Your task to perform on an android device: What's on my calendar today? Image 0: 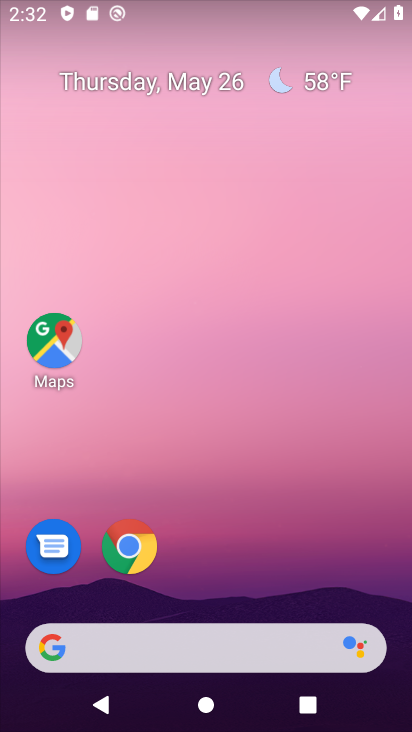
Step 0: press home button
Your task to perform on an android device: What's on my calendar today? Image 1: 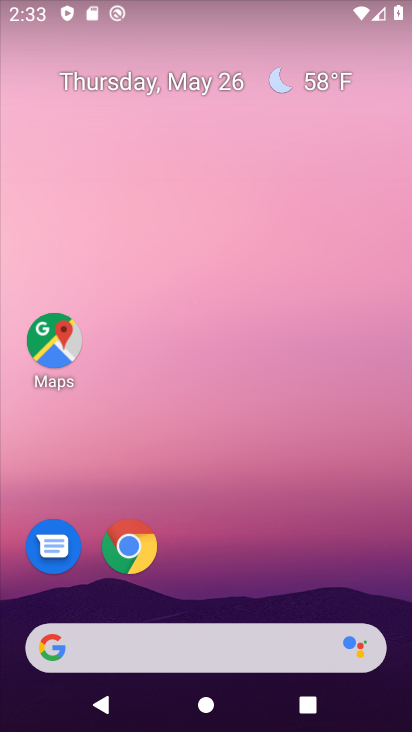
Step 1: drag from (214, 612) to (206, 76)
Your task to perform on an android device: What's on my calendar today? Image 2: 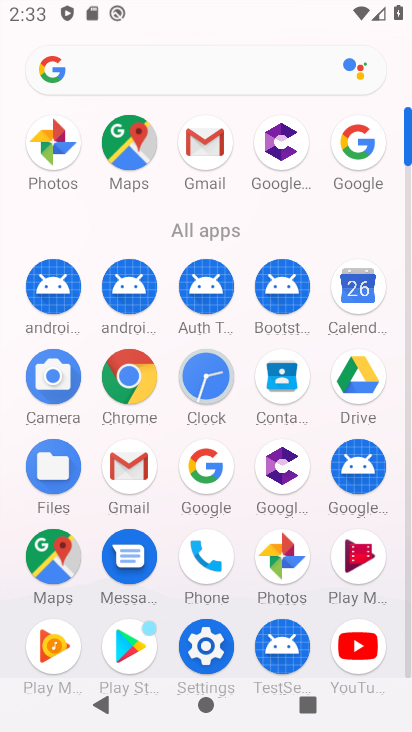
Step 2: click (355, 289)
Your task to perform on an android device: What's on my calendar today? Image 3: 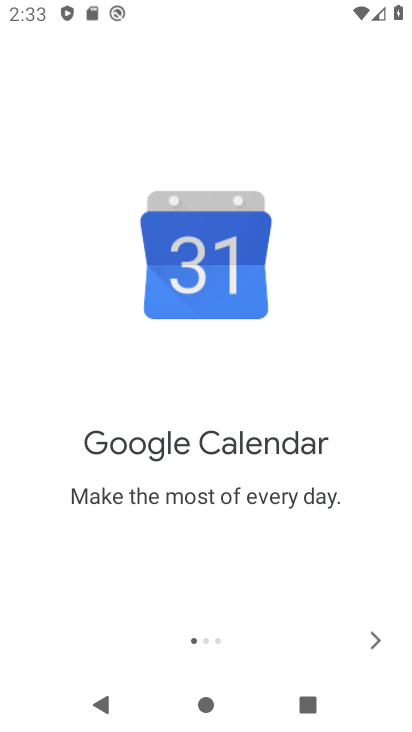
Step 3: click (374, 631)
Your task to perform on an android device: What's on my calendar today? Image 4: 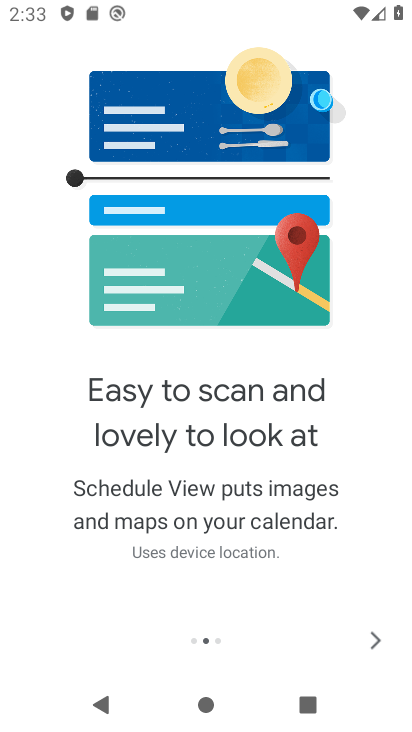
Step 4: click (373, 631)
Your task to perform on an android device: What's on my calendar today? Image 5: 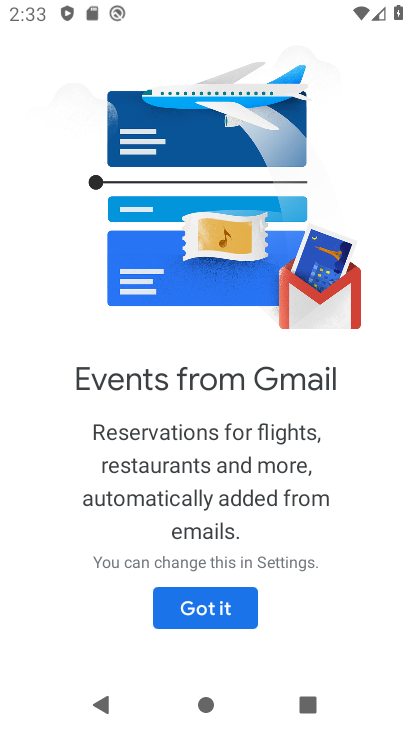
Step 5: click (211, 601)
Your task to perform on an android device: What's on my calendar today? Image 6: 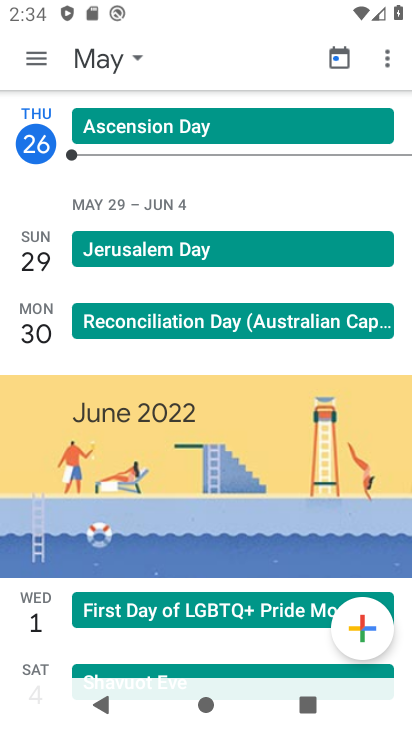
Step 6: drag from (47, 166) to (63, 301)
Your task to perform on an android device: What's on my calendar today? Image 7: 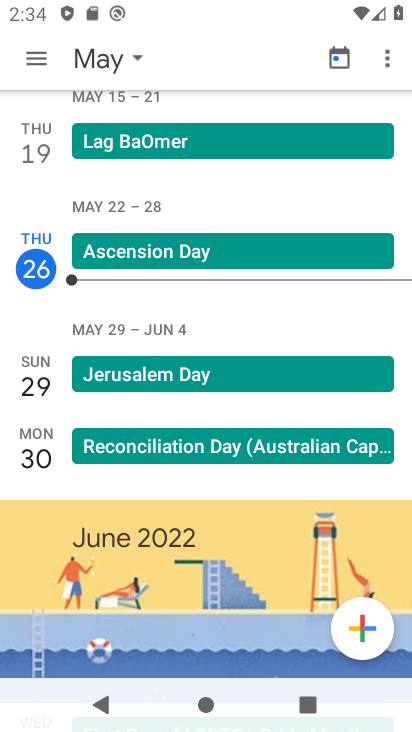
Step 7: click (57, 275)
Your task to perform on an android device: What's on my calendar today? Image 8: 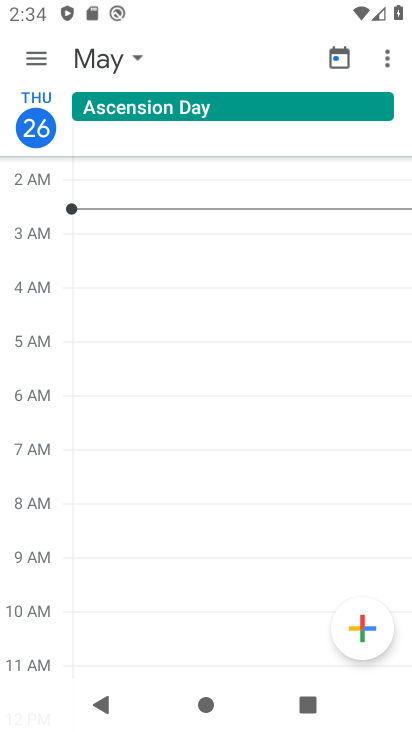
Step 8: task complete